Your task to perform on an android device: Open Android settings Image 0: 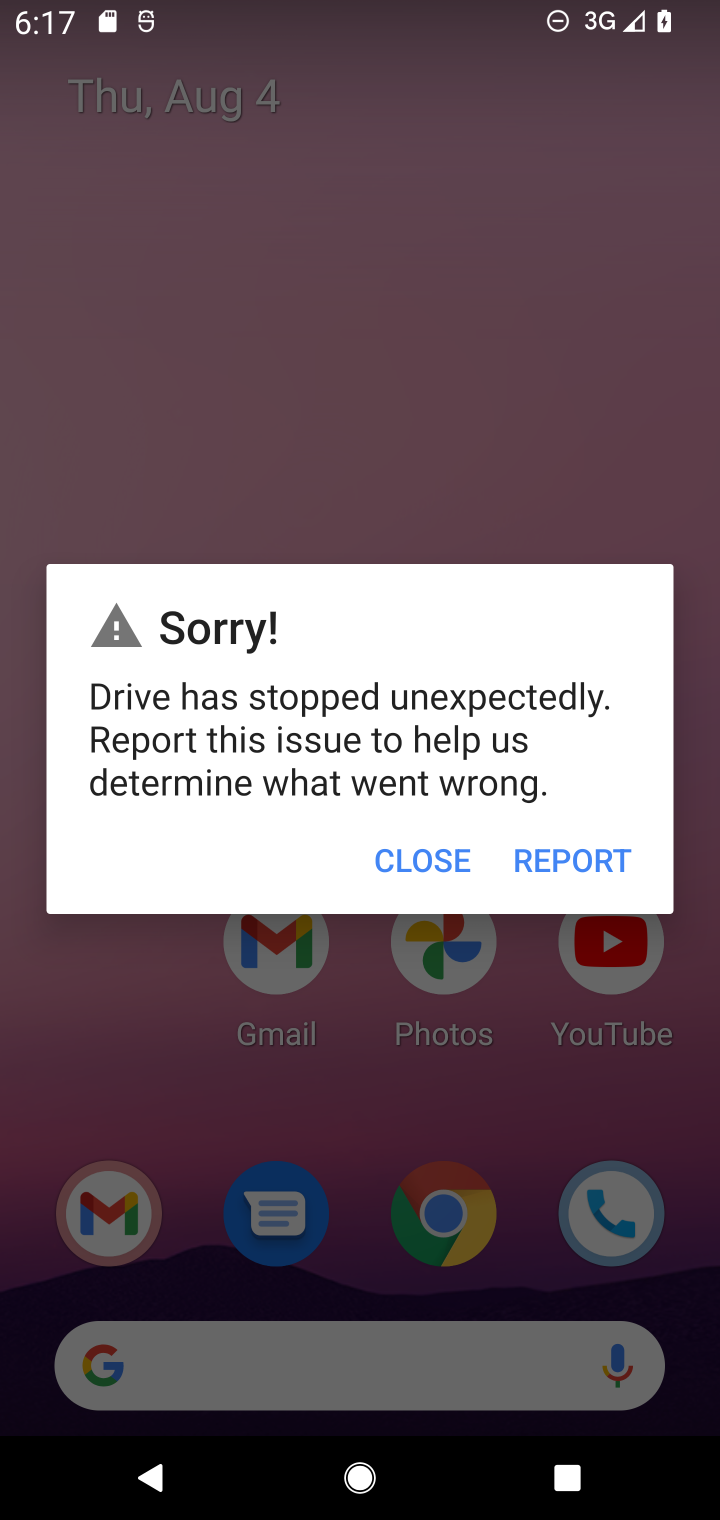
Step 0: press home button
Your task to perform on an android device: Open Android settings Image 1: 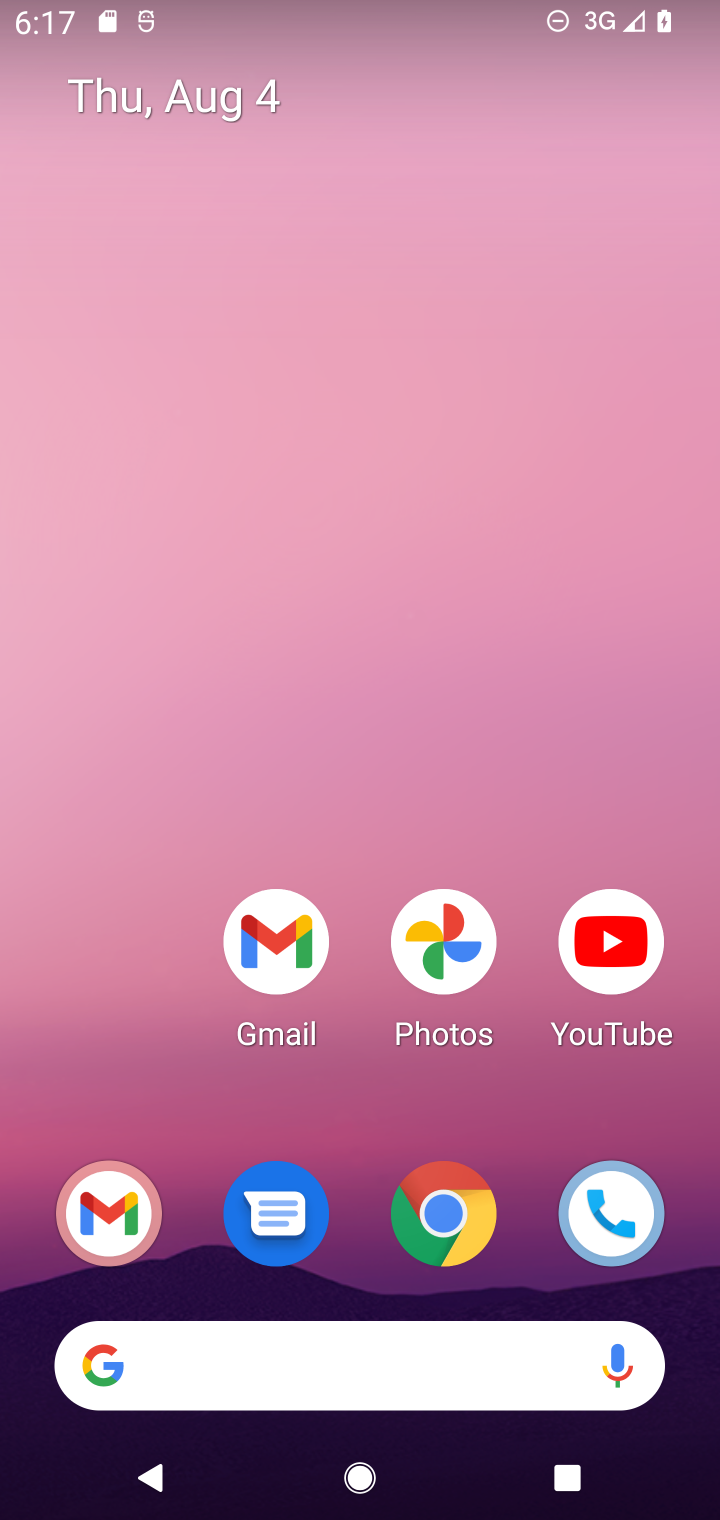
Step 1: drag from (118, 1005) to (153, 271)
Your task to perform on an android device: Open Android settings Image 2: 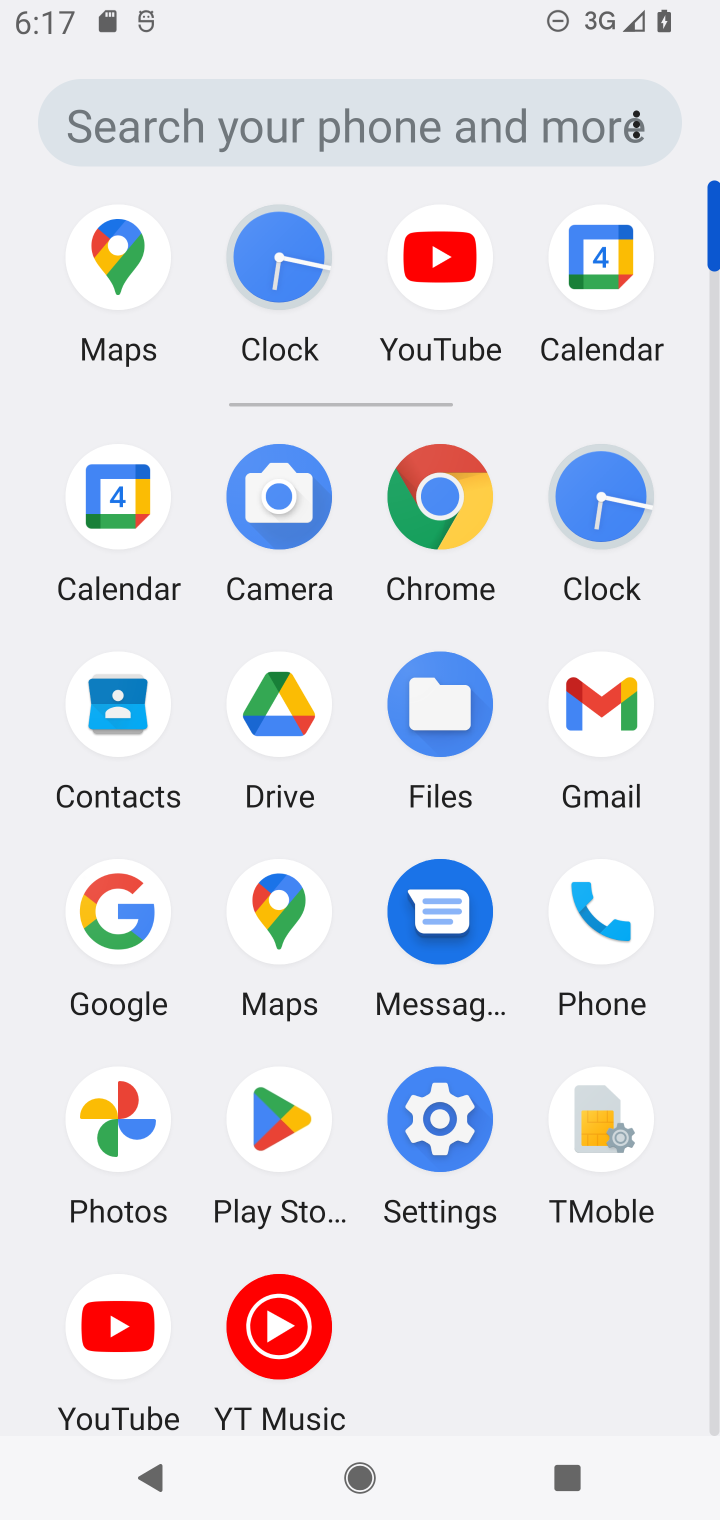
Step 2: click (454, 1104)
Your task to perform on an android device: Open Android settings Image 3: 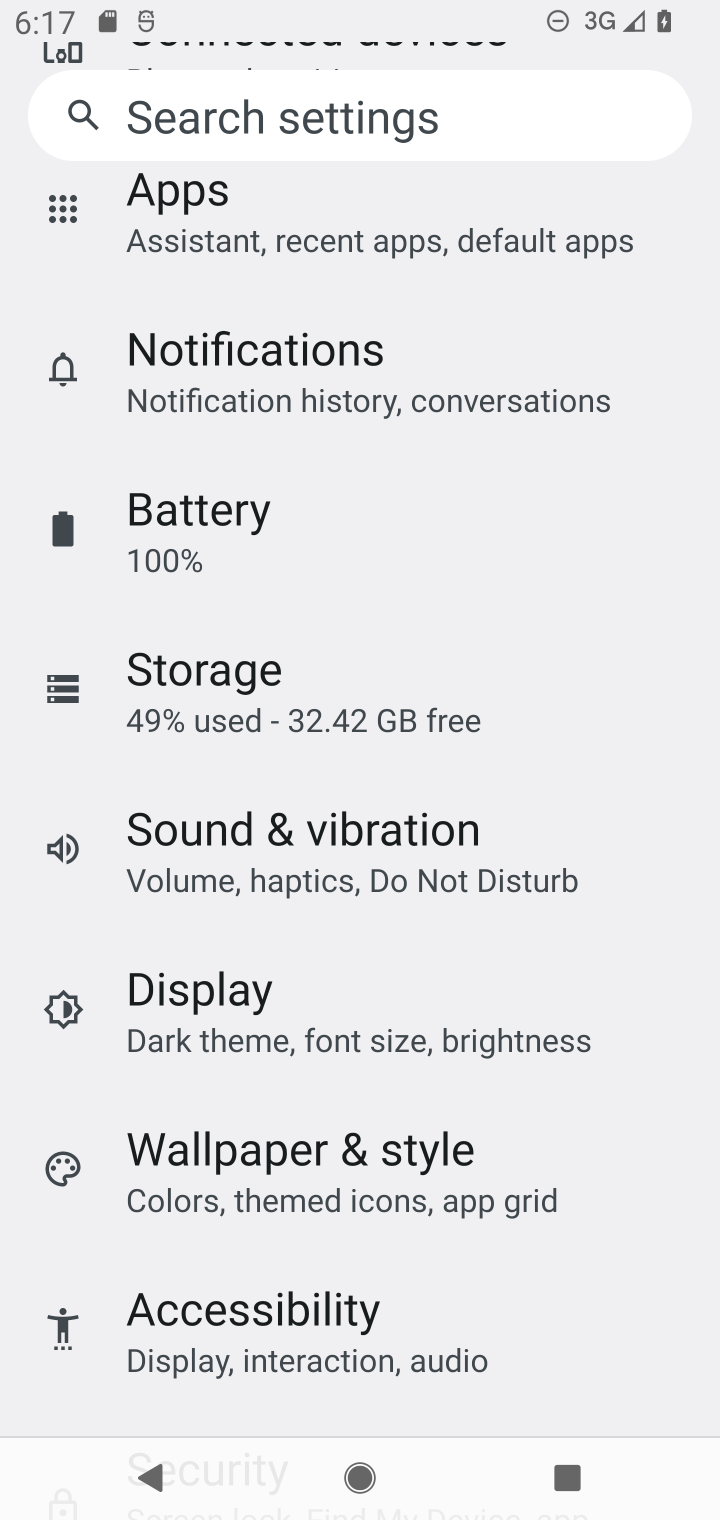
Step 3: drag from (551, 1210) to (522, 798)
Your task to perform on an android device: Open Android settings Image 4: 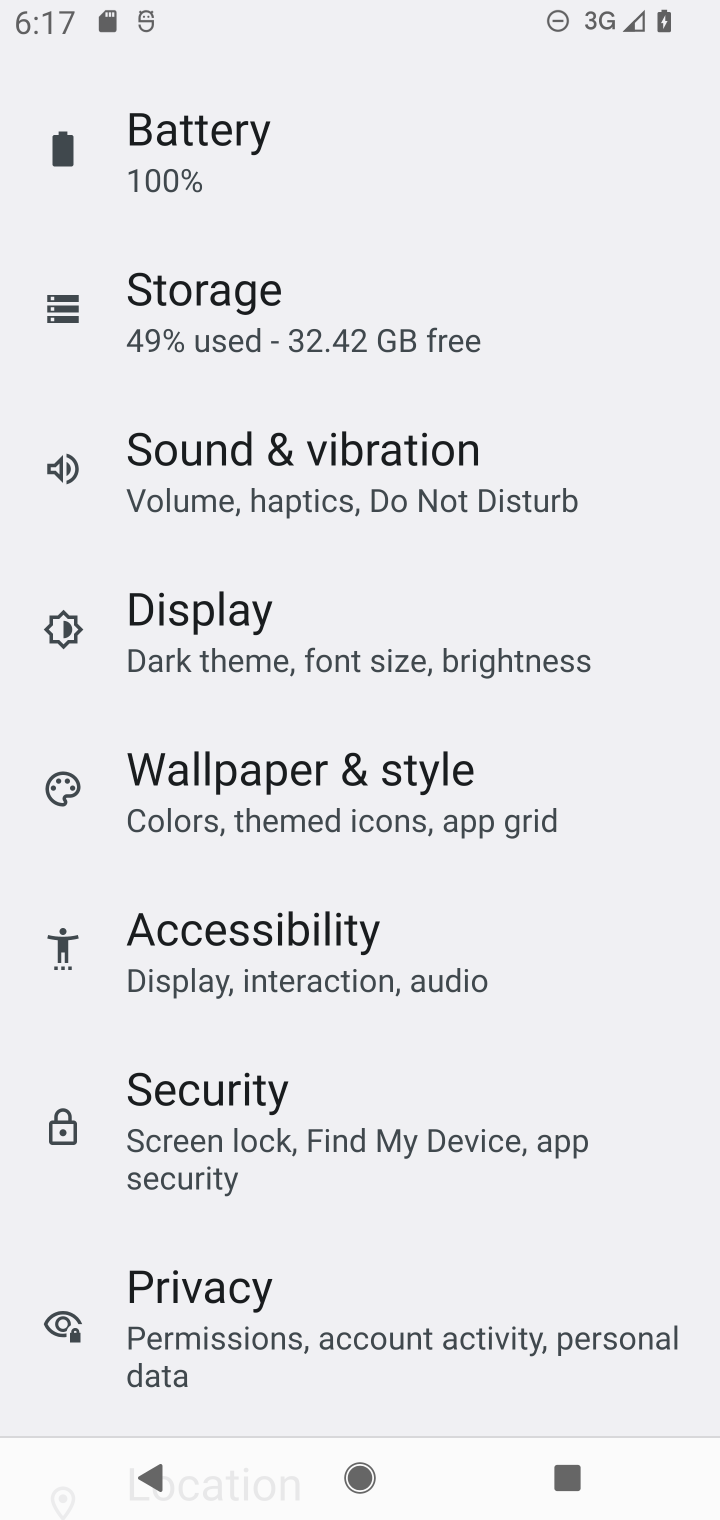
Step 4: drag from (493, 1152) to (459, 765)
Your task to perform on an android device: Open Android settings Image 5: 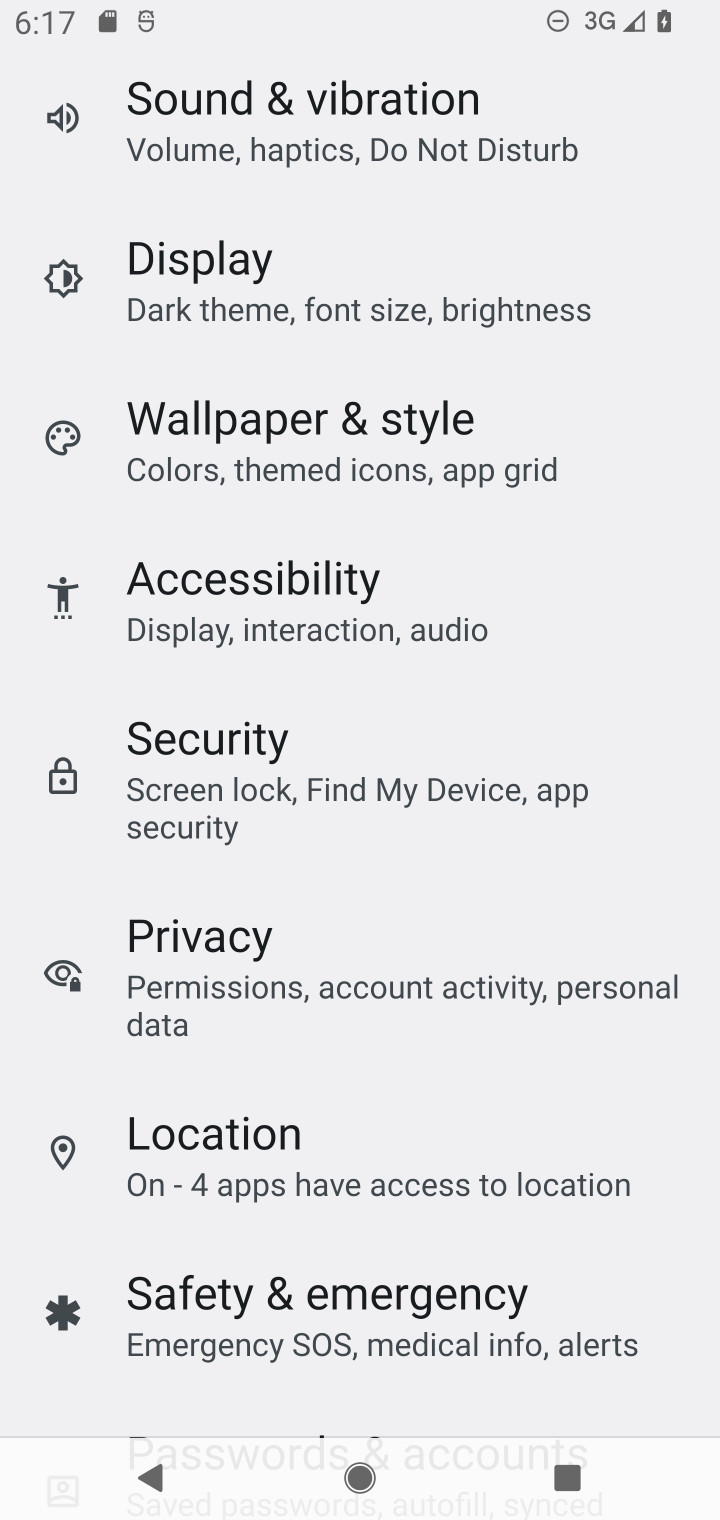
Step 5: drag from (455, 990) to (466, 735)
Your task to perform on an android device: Open Android settings Image 6: 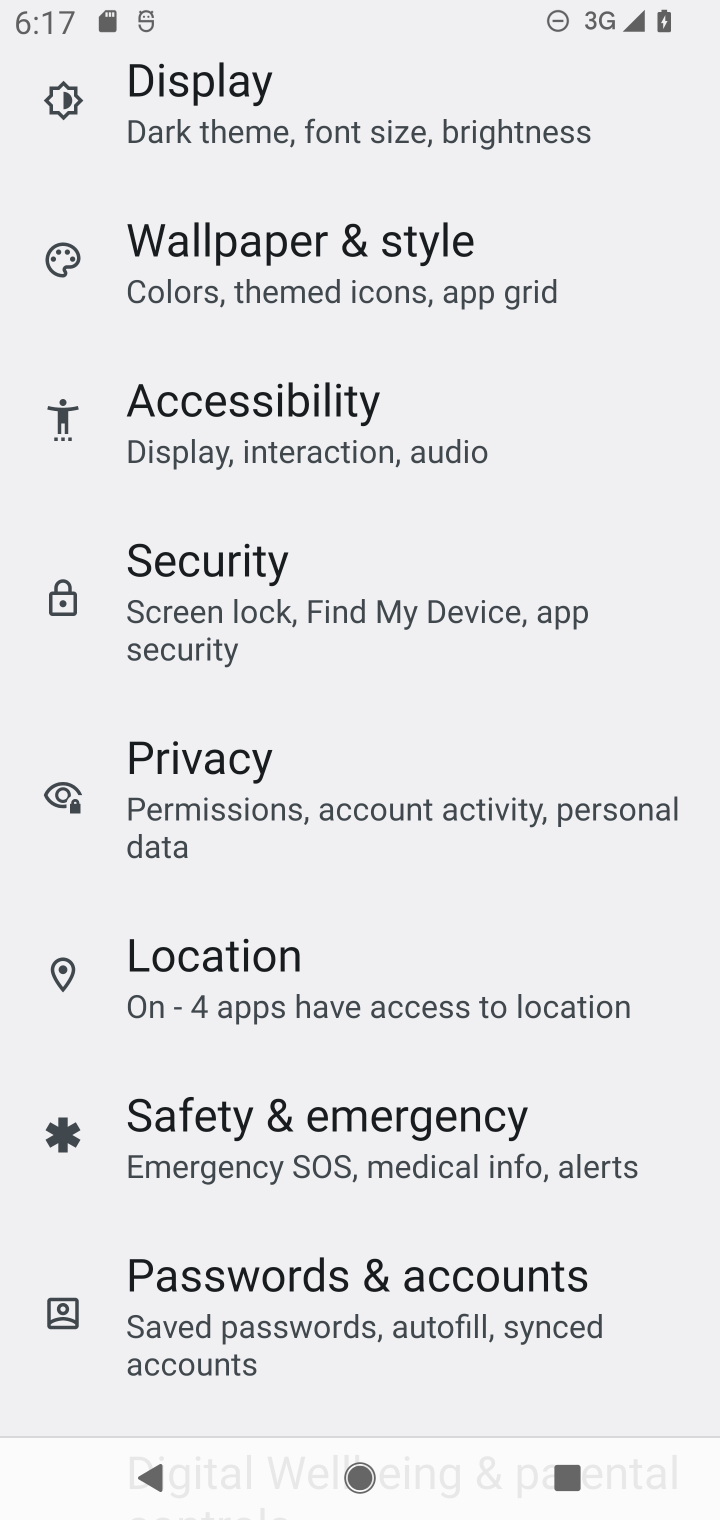
Step 6: drag from (422, 1124) to (446, 752)
Your task to perform on an android device: Open Android settings Image 7: 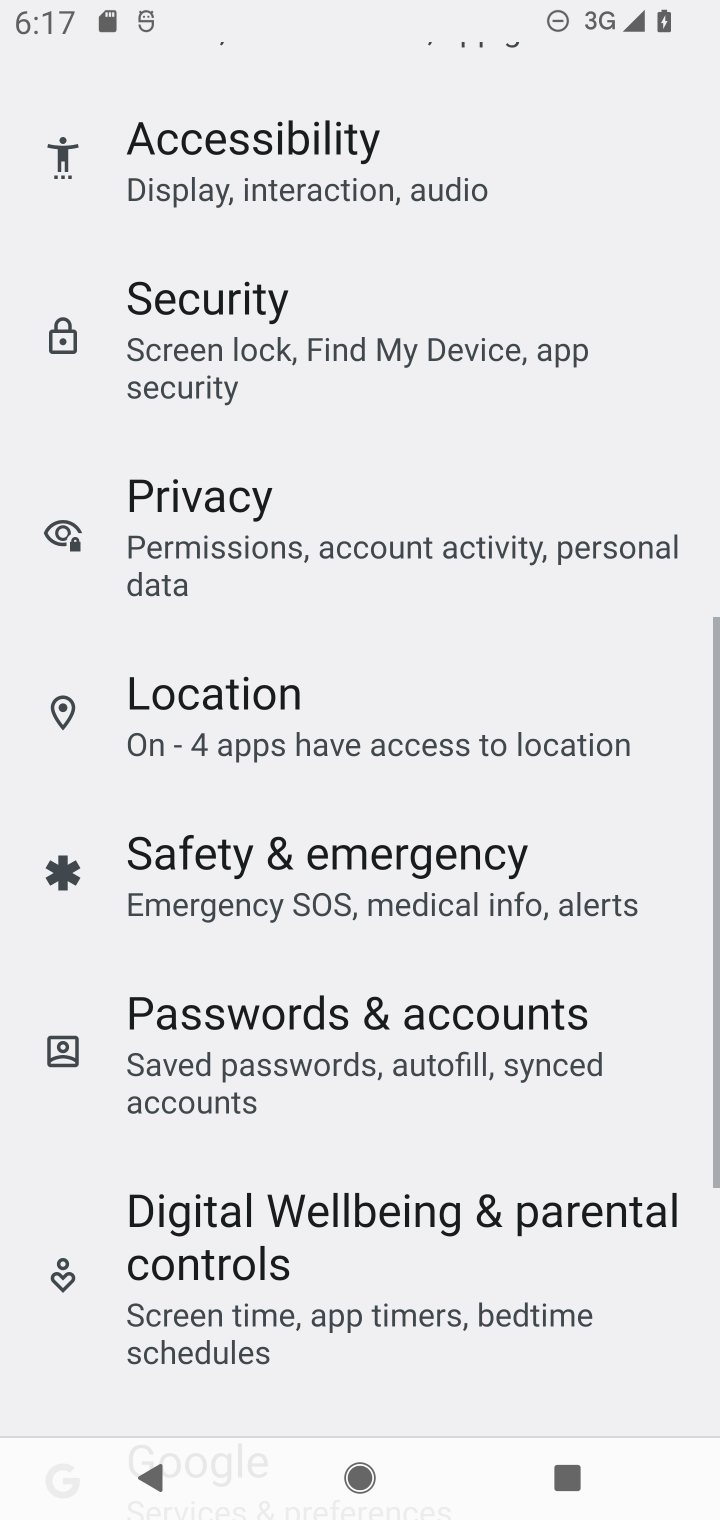
Step 7: drag from (445, 1136) to (460, 827)
Your task to perform on an android device: Open Android settings Image 8: 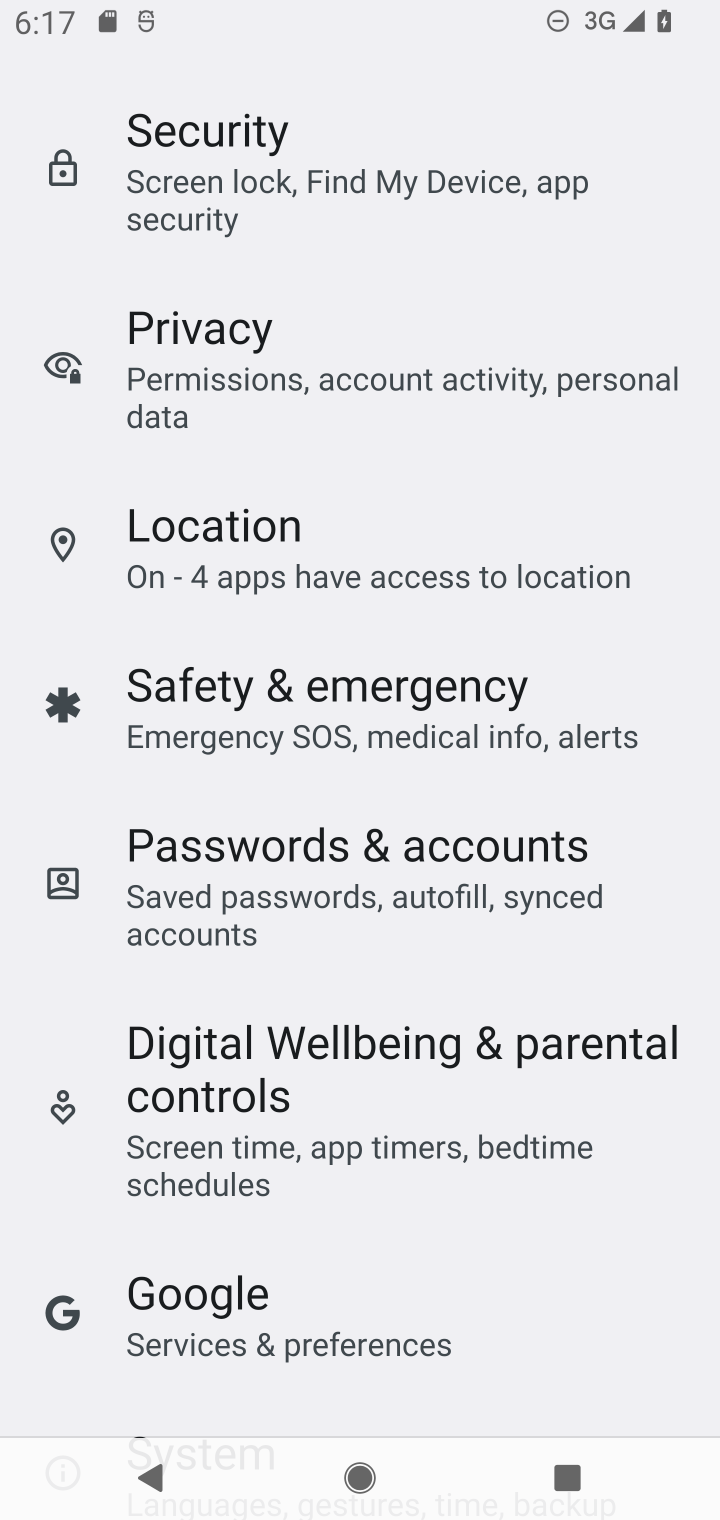
Step 8: drag from (490, 1152) to (494, 817)
Your task to perform on an android device: Open Android settings Image 9: 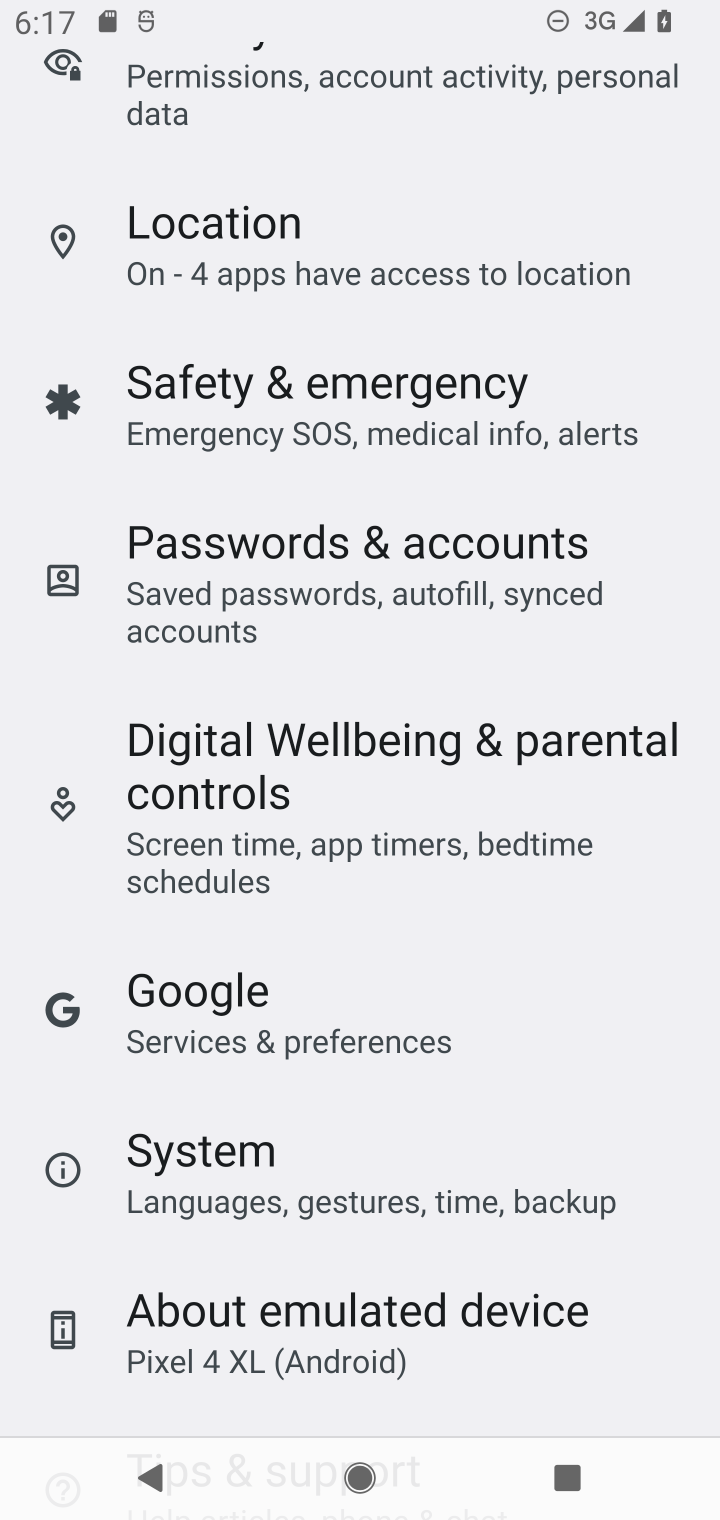
Step 9: drag from (549, 1139) to (559, 850)
Your task to perform on an android device: Open Android settings Image 10: 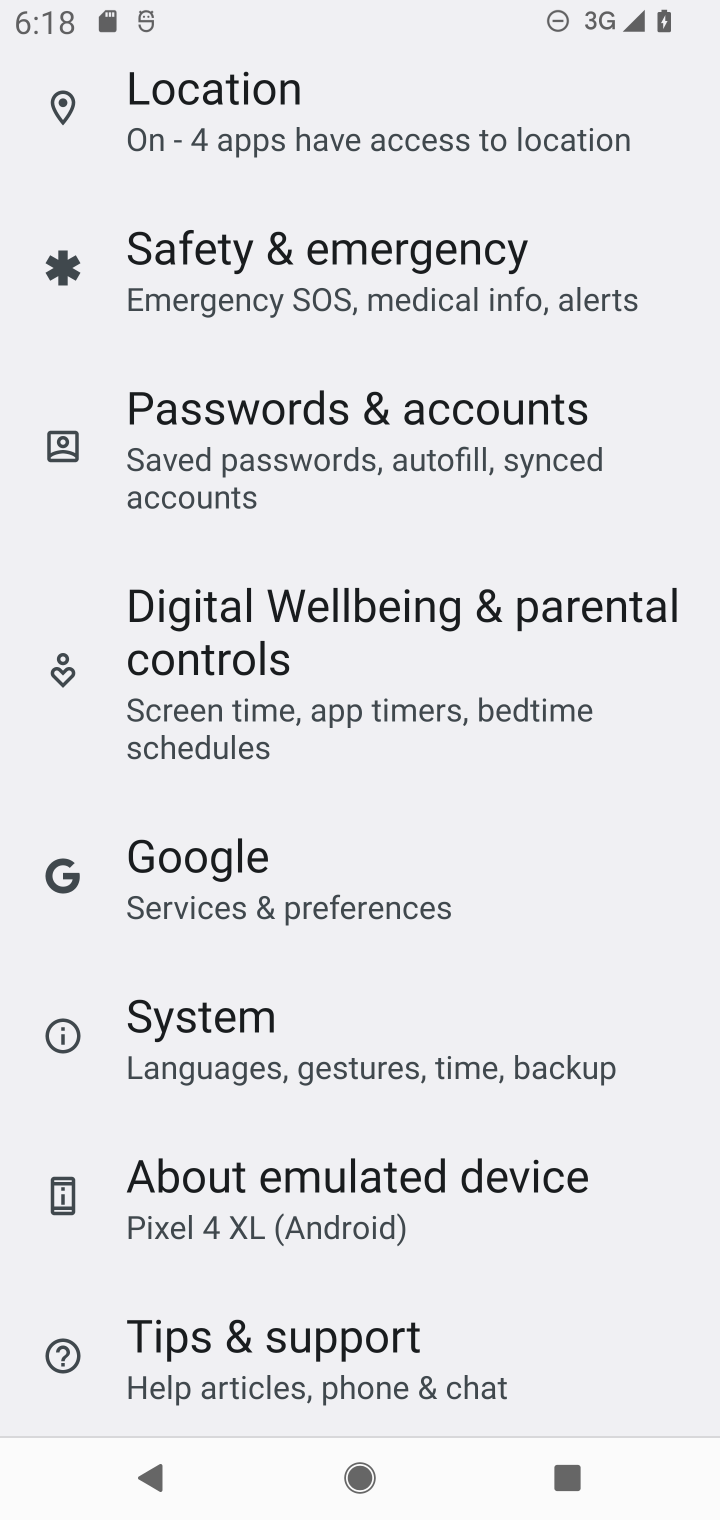
Step 10: drag from (547, 1230) to (532, 870)
Your task to perform on an android device: Open Android settings Image 11: 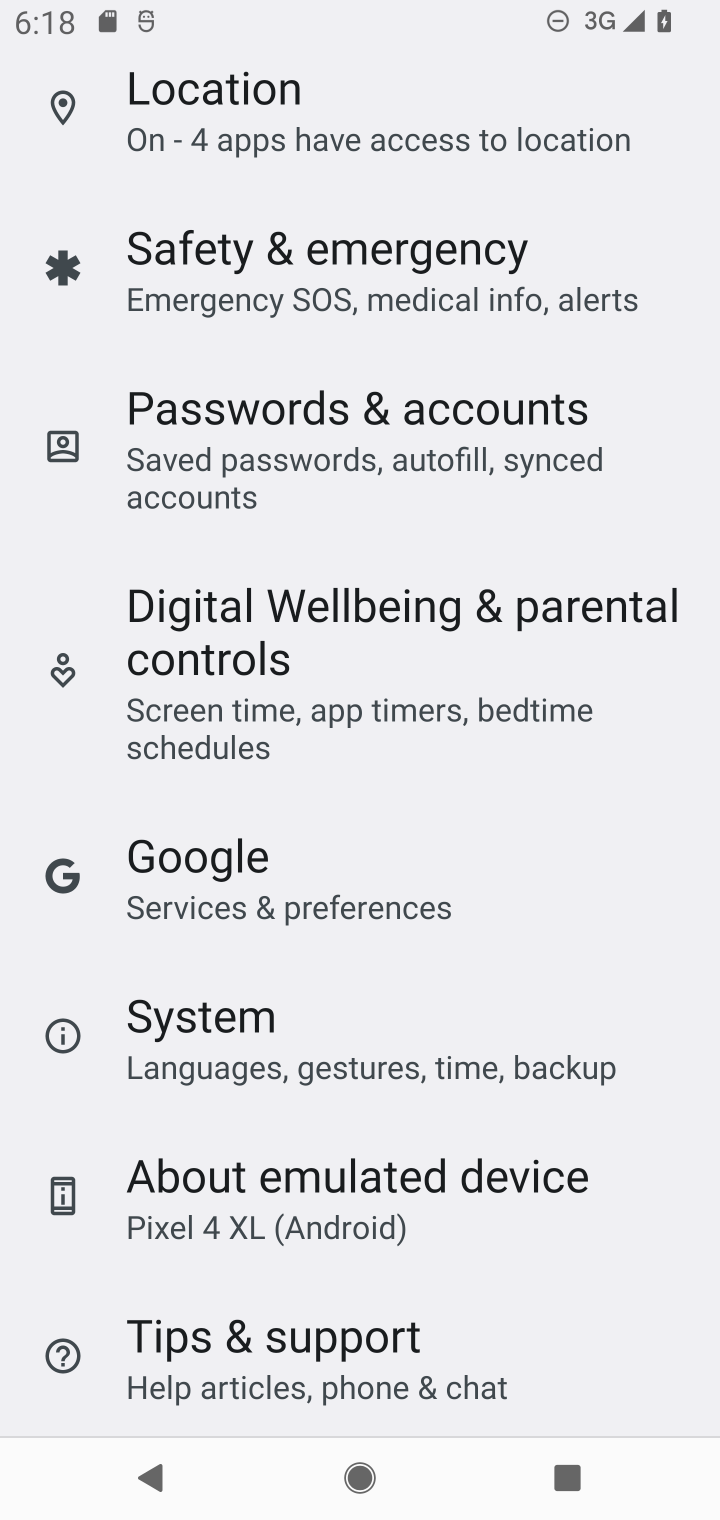
Step 11: drag from (518, 1217) to (522, 839)
Your task to perform on an android device: Open Android settings Image 12: 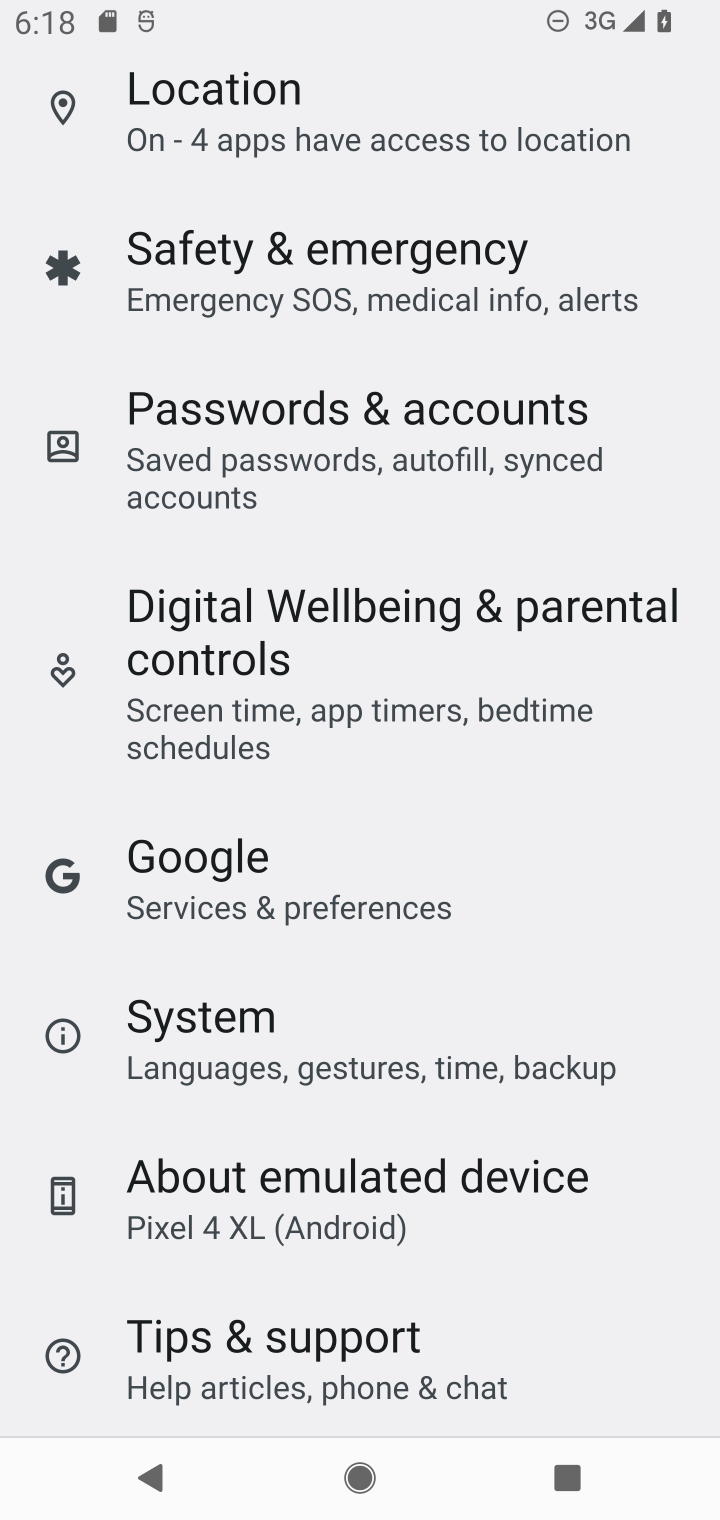
Step 12: drag from (582, 482) to (617, 851)
Your task to perform on an android device: Open Android settings Image 13: 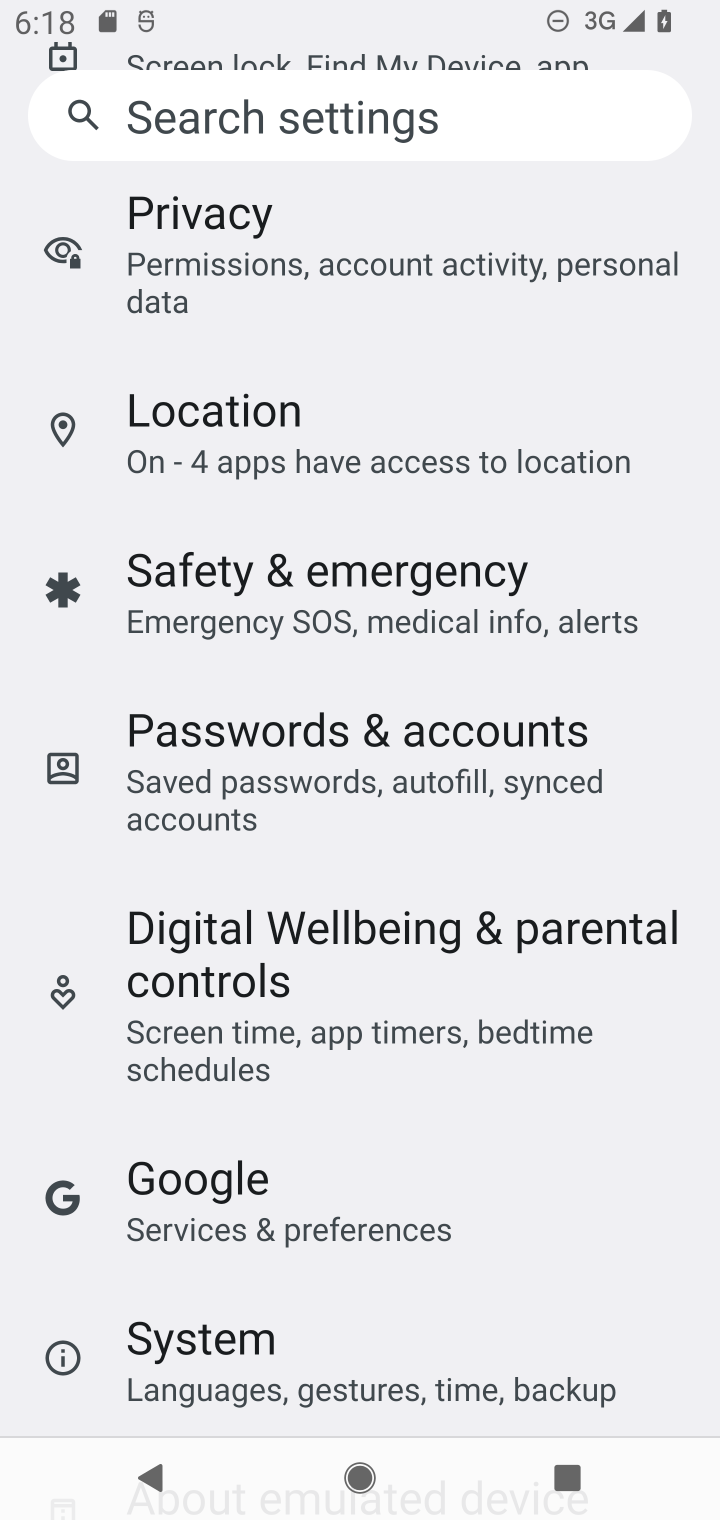
Step 13: click (539, 1354)
Your task to perform on an android device: Open Android settings Image 14: 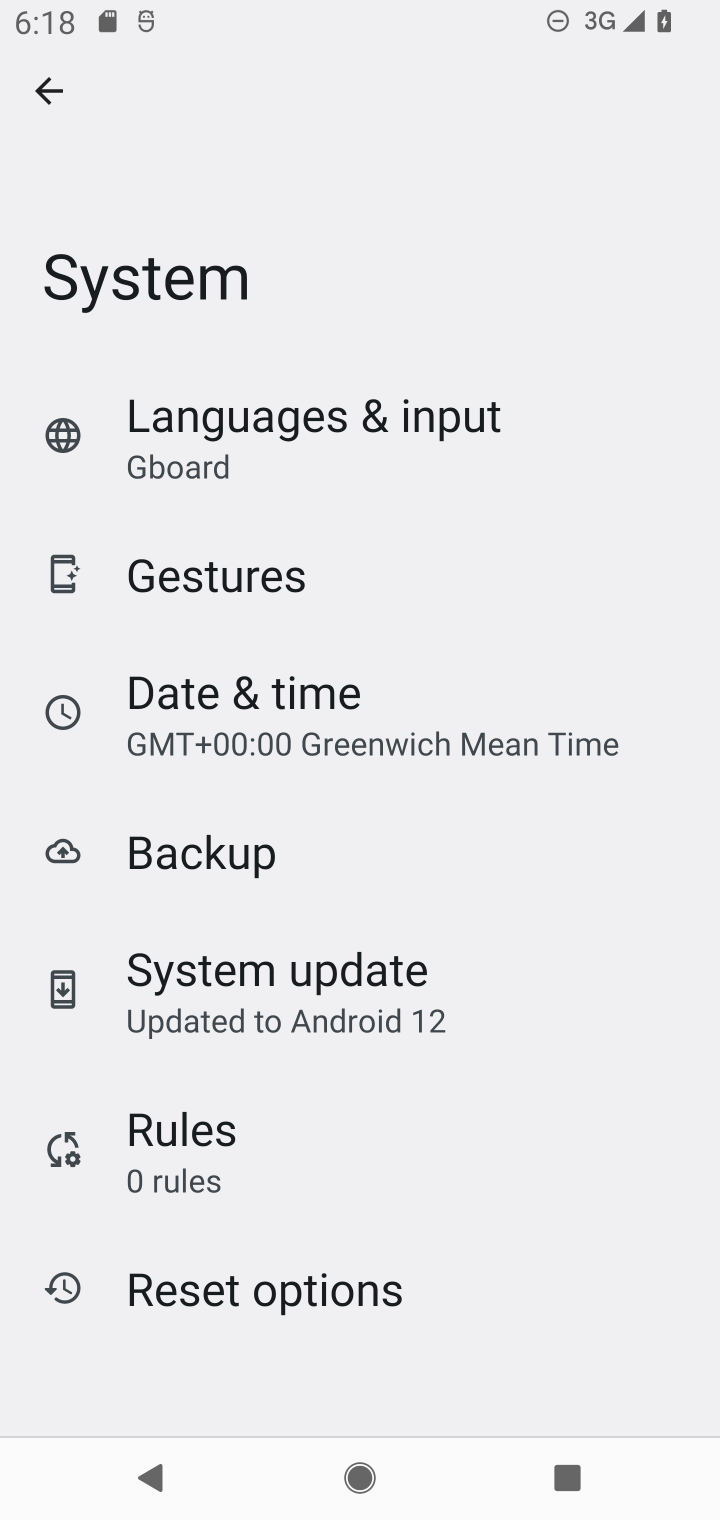
Step 14: task complete